Your task to perform on an android device: Search for sony triple a on costco.com, select the first entry, add it to the cart, then select checkout. Image 0: 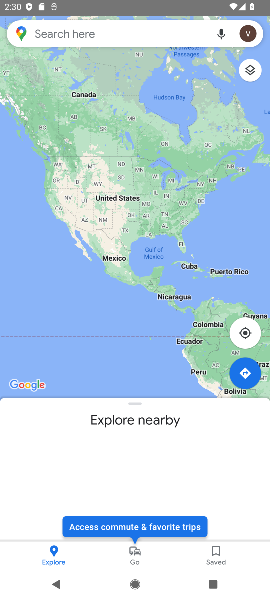
Step 0: press home button
Your task to perform on an android device: Search for sony triple a on costco.com, select the first entry, add it to the cart, then select checkout. Image 1: 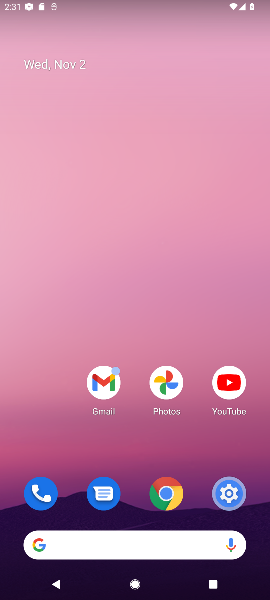
Step 1: click (158, 494)
Your task to perform on an android device: Search for sony triple a on costco.com, select the first entry, add it to the cart, then select checkout. Image 2: 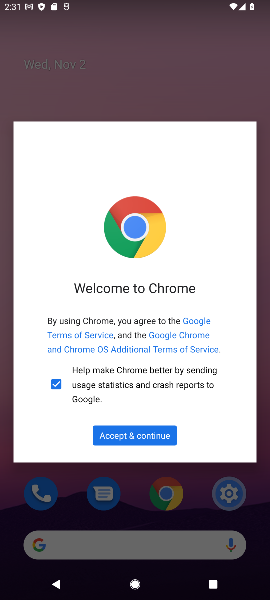
Step 2: click (147, 437)
Your task to perform on an android device: Search for sony triple a on costco.com, select the first entry, add it to the cart, then select checkout. Image 3: 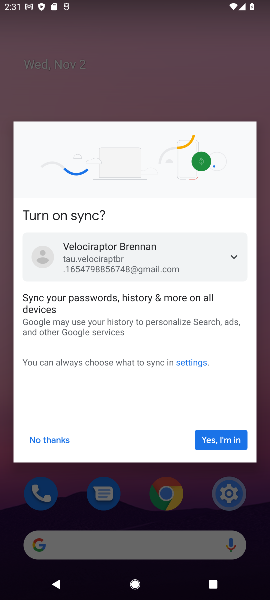
Step 3: click (216, 437)
Your task to perform on an android device: Search for sony triple a on costco.com, select the first entry, add it to the cart, then select checkout. Image 4: 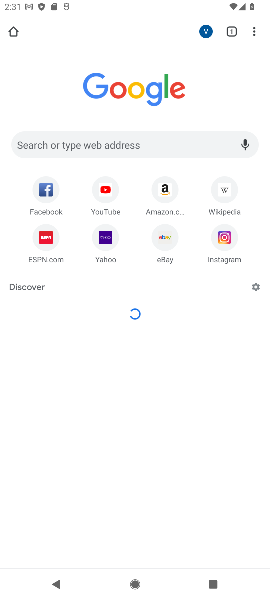
Step 4: click (182, 142)
Your task to perform on an android device: Search for sony triple a on costco.com, select the first entry, add it to the cart, then select checkout. Image 5: 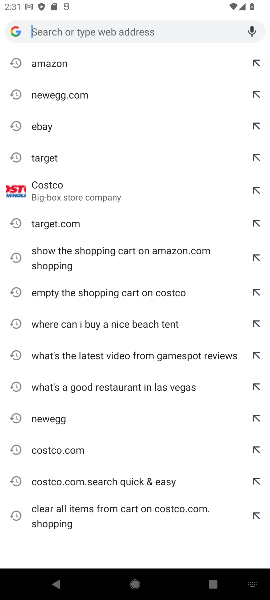
Step 5: type "costco.com"
Your task to perform on an android device: Search for sony triple a on costco.com, select the first entry, add it to the cart, then select checkout. Image 6: 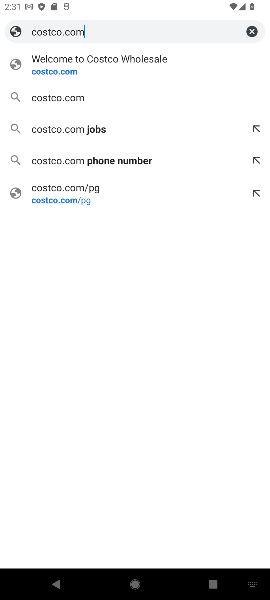
Step 6: click (78, 97)
Your task to perform on an android device: Search for sony triple a on costco.com, select the first entry, add it to the cart, then select checkout. Image 7: 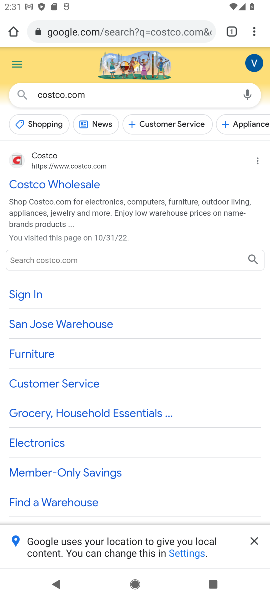
Step 7: click (48, 162)
Your task to perform on an android device: Search for sony triple a on costco.com, select the first entry, add it to the cart, then select checkout. Image 8: 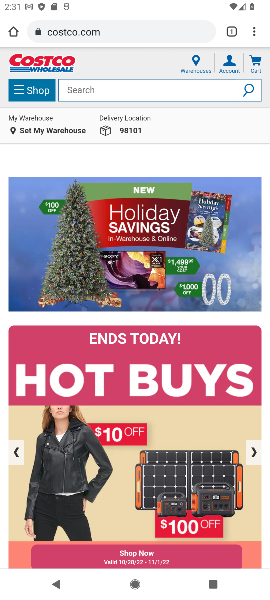
Step 8: click (128, 84)
Your task to perform on an android device: Search for sony triple a on costco.com, select the first entry, add it to the cart, then select checkout. Image 9: 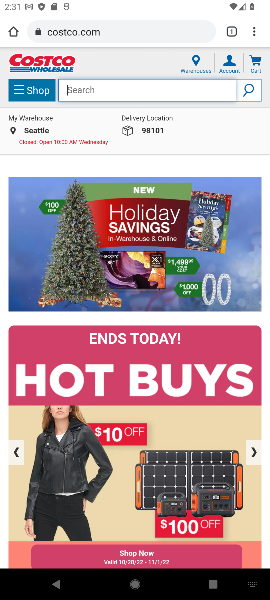
Step 9: type "sony triple a"
Your task to perform on an android device: Search for sony triple a on costco.com, select the first entry, add it to the cart, then select checkout. Image 10: 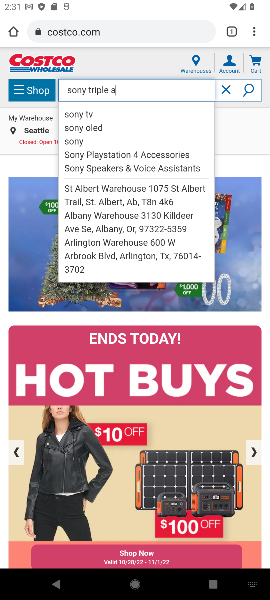
Step 10: click (252, 129)
Your task to perform on an android device: Search for sony triple a on costco.com, select the first entry, add it to the cart, then select checkout. Image 11: 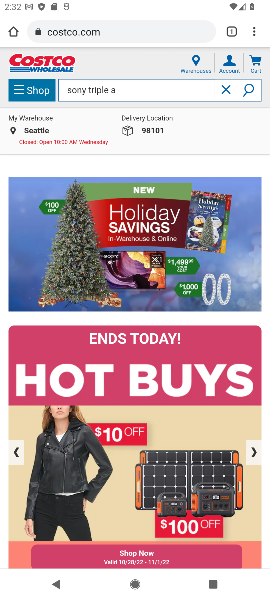
Step 11: click (162, 87)
Your task to perform on an android device: Search for sony triple a on costco.com, select the first entry, add it to the cart, then select checkout. Image 12: 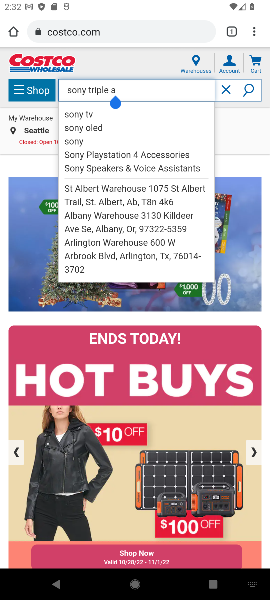
Step 12: task complete